Your task to perform on an android device: Open internet settings Image 0: 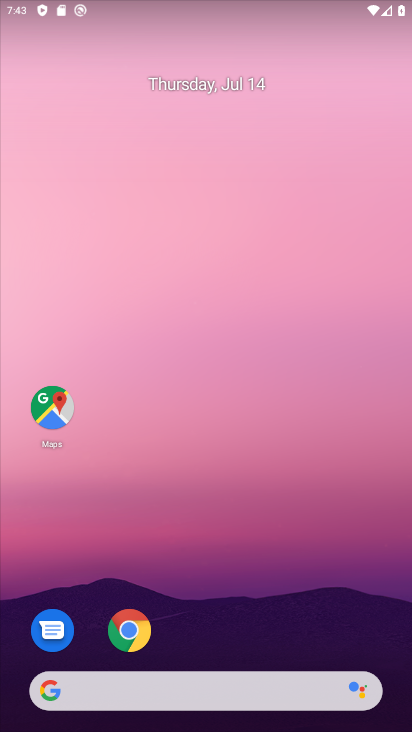
Step 0: drag from (273, 598) to (209, 359)
Your task to perform on an android device: Open internet settings Image 1: 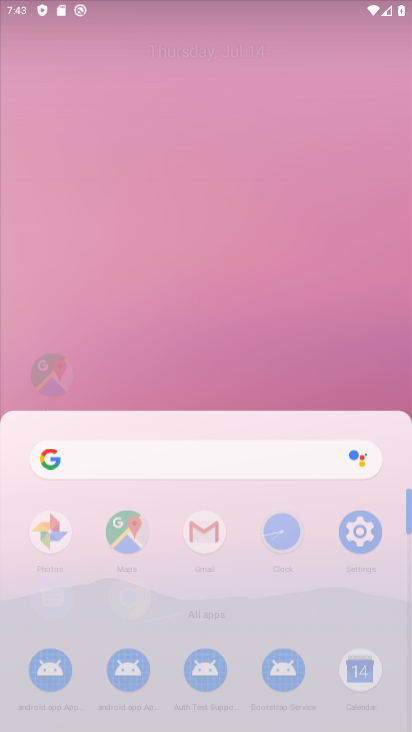
Step 1: drag from (181, 525) to (169, 292)
Your task to perform on an android device: Open internet settings Image 2: 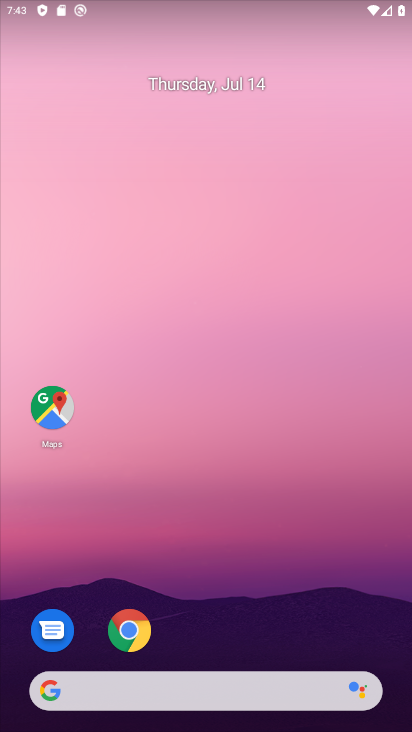
Step 2: drag from (277, 590) to (298, 187)
Your task to perform on an android device: Open internet settings Image 3: 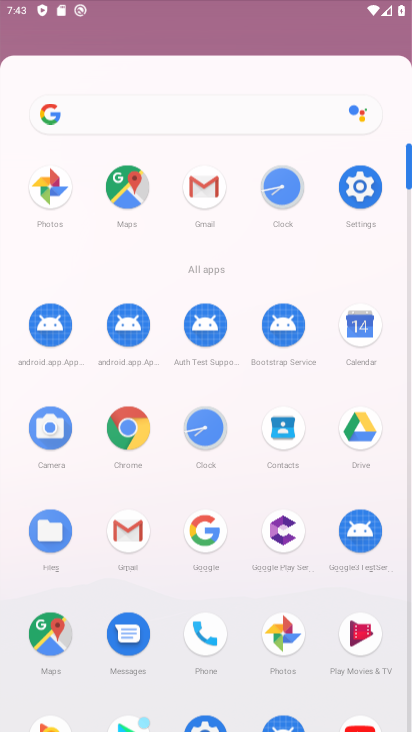
Step 3: drag from (254, 584) to (195, 192)
Your task to perform on an android device: Open internet settings Image 4: 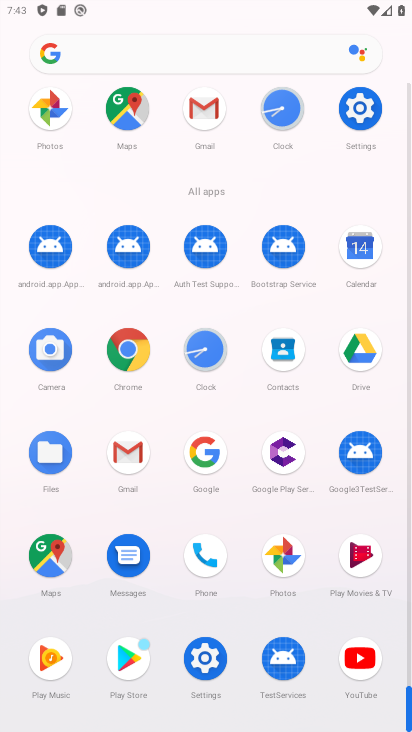
Step 4: drag from (193, 532) to (177, 208)
Your task to perform on an android device: Open internet settings Image 5: 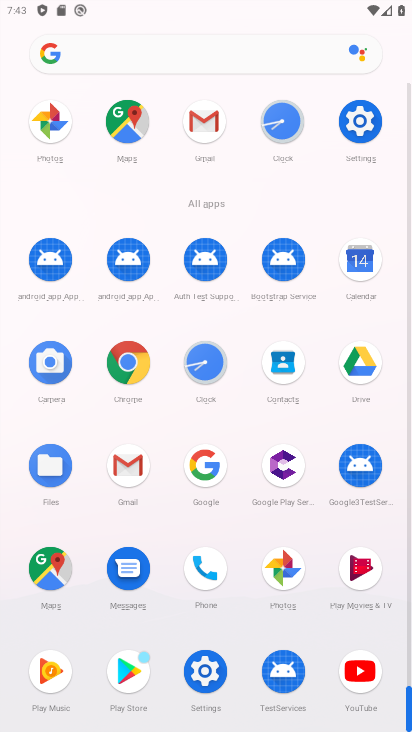
Step 5: click (208, 665)
Your task to perform on an android device: Open internet settings Image 6: 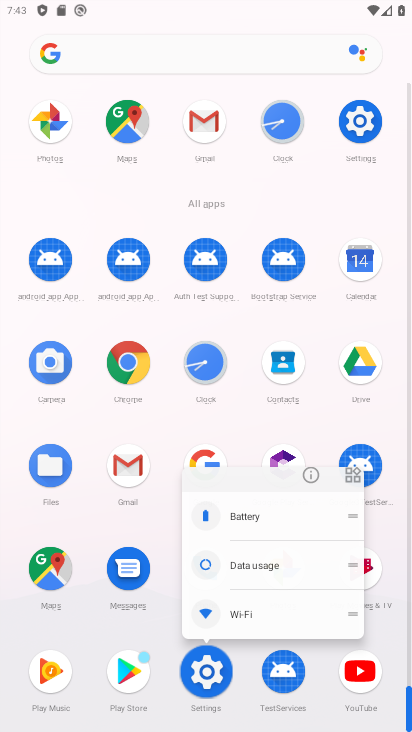
Step 6: click (208, 665)
Your task to perform on an android device: Open internet settings Image 7: 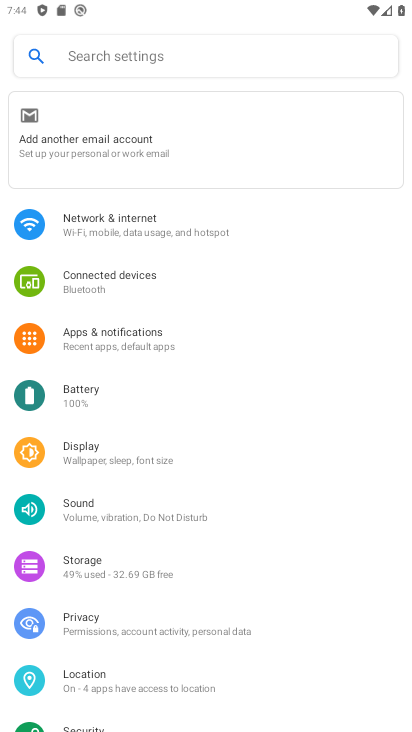
Step 7: click (120, 222)
Your task to perform on an android device: Open internet settings Image 8: 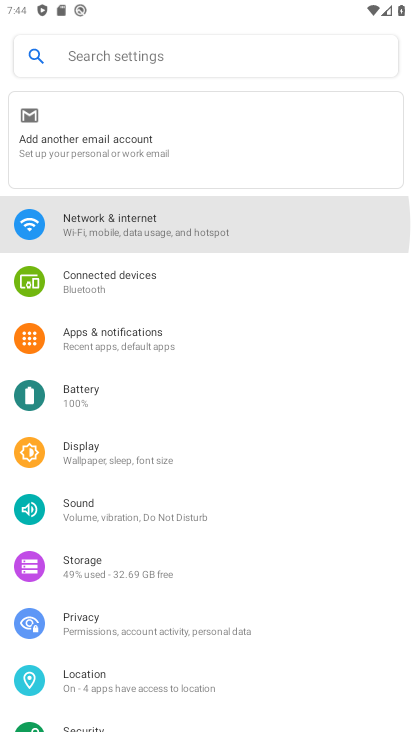
Step 8: click (120, 222)
Your task to perform on an android device: Open internet settings Image 9: 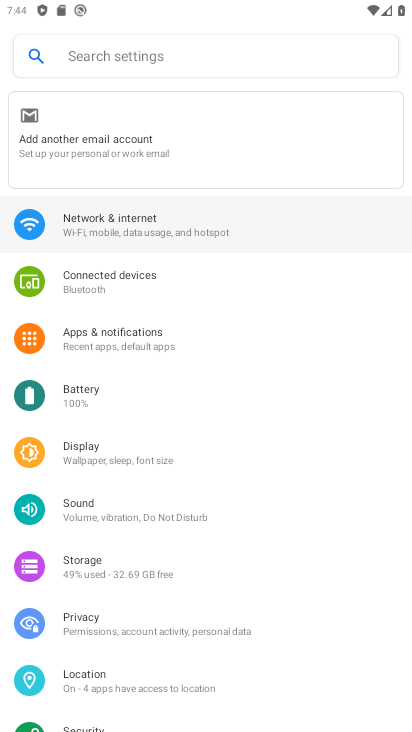
Step 9: click (120, 222)
Your task to perform on an android device: Open internet settings Image 10: 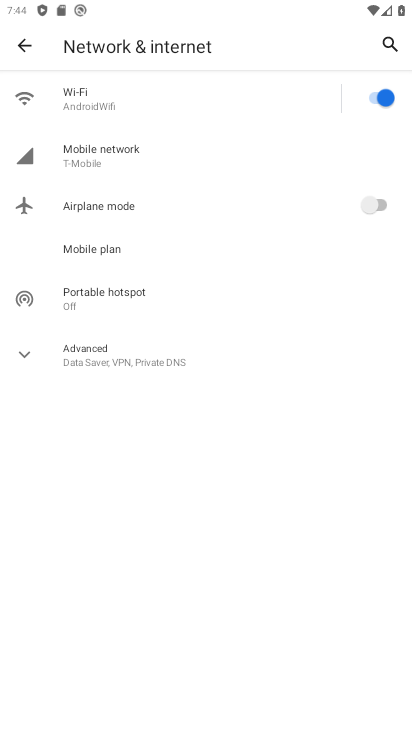
Step 10: task complete